Your task to perform on an android device: check battery use Image 0: 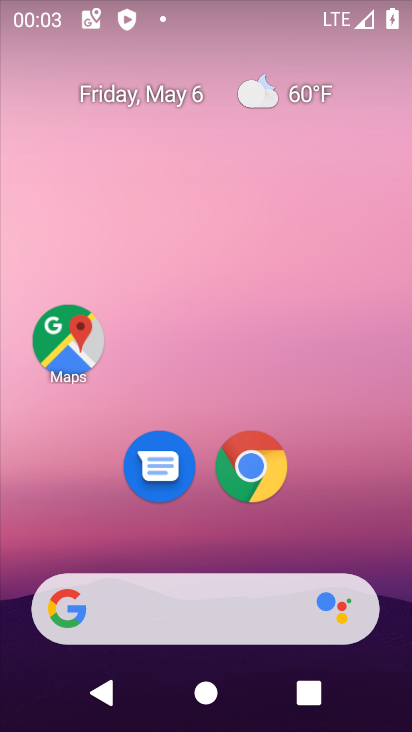
Step 0: click (244, 228)
Your task to perform on an android device: check battery use Image 1: 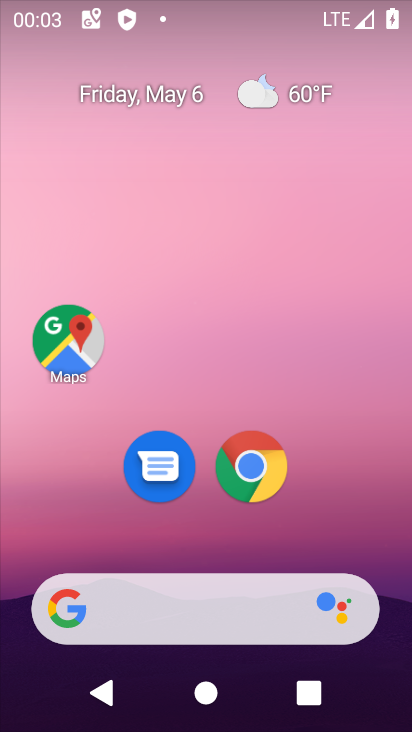
Step 1: drag from (179, 573) to (240, 149)
Your task to perform on an android device: check battery use Image 2: 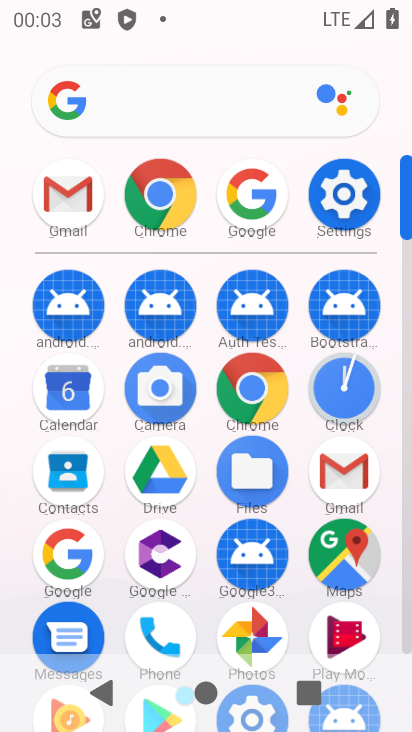
Step 2: click (333, 188)
Your task to perform on an android device: check battery use Image 3: 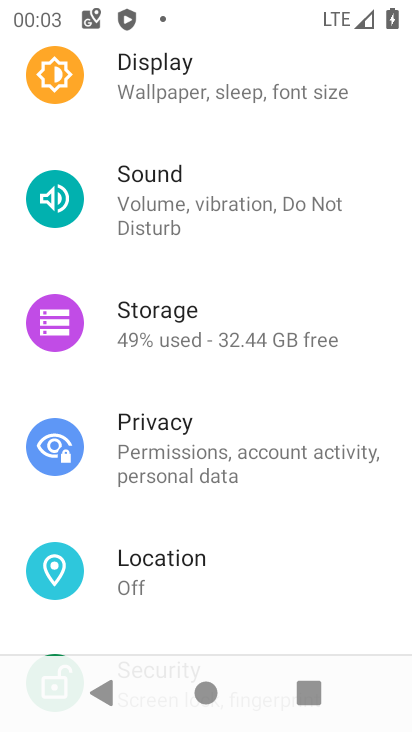
Step 3: drag from (158, 604) to (185, 332)
Your task to perform on an android device: check battery use Image 4: 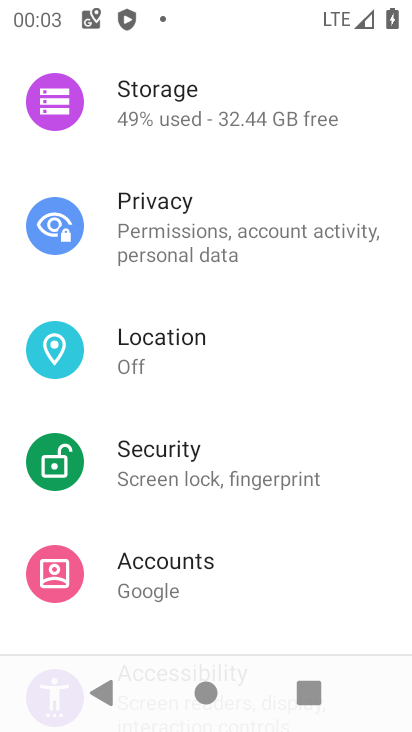
Step 4: drag from (189, 192) to (224, 581)
Your task to perform on an android device: check battery use Image 5: 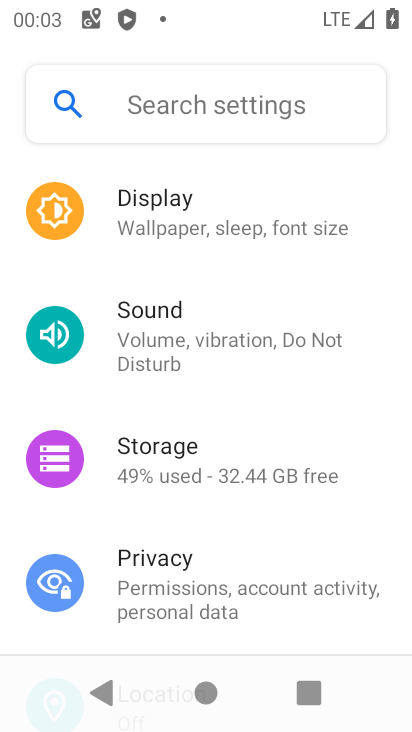
Step 5: drag from (214, 200) to (266, 544)
Your task to perform on an android device: check battery use Image 6: 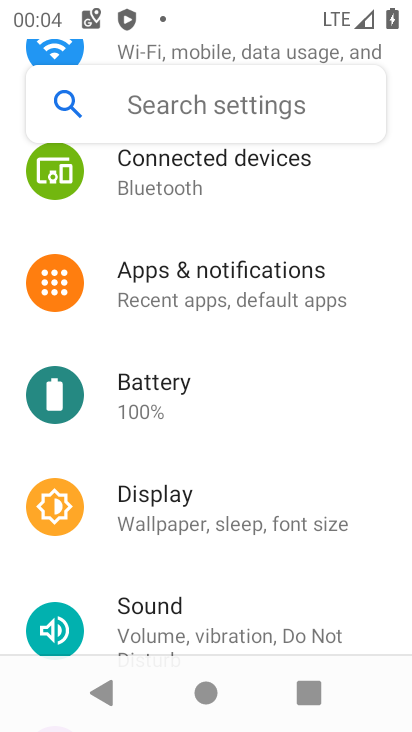
Step 6: drag from (263, 247) to (261, 585)
Your task to perform on an android device: check battery use Image 7: 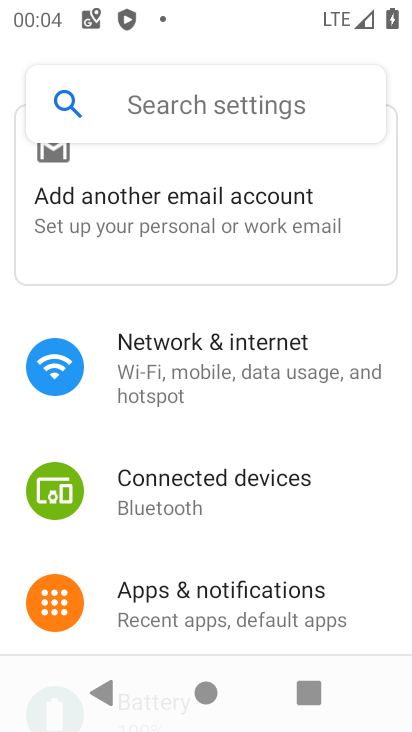
Step 7: drag from (215, 634) to (209, 277)
Your task to perform on an android device: check battery use Image 8: 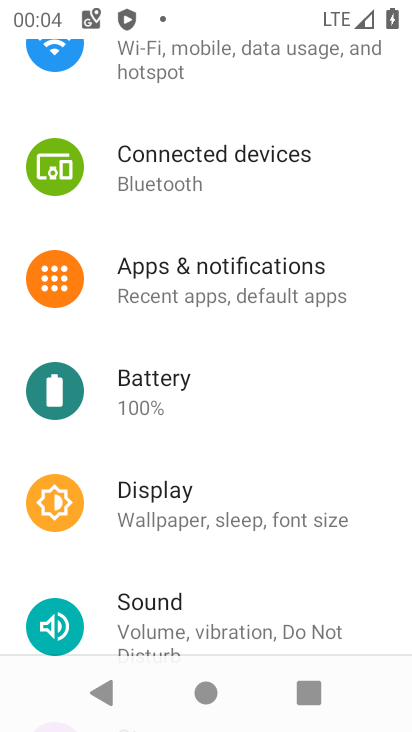
Step 8: click (155, 386)
Your task to perform on an android device: check battery use Image 9: 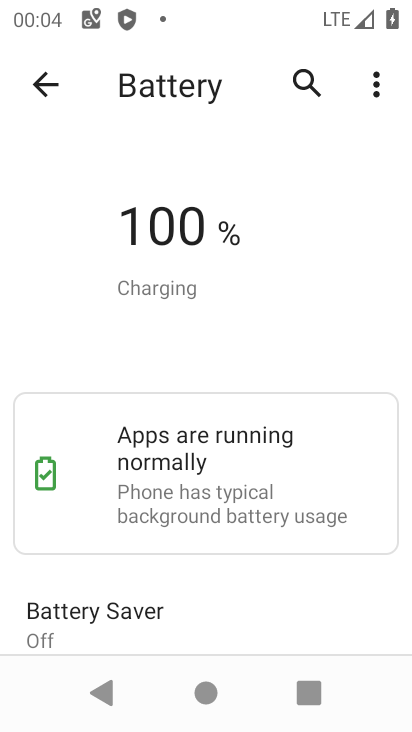
Step 9: click (375, 88)
Your task to perform on an android device: check battery use Image 10: 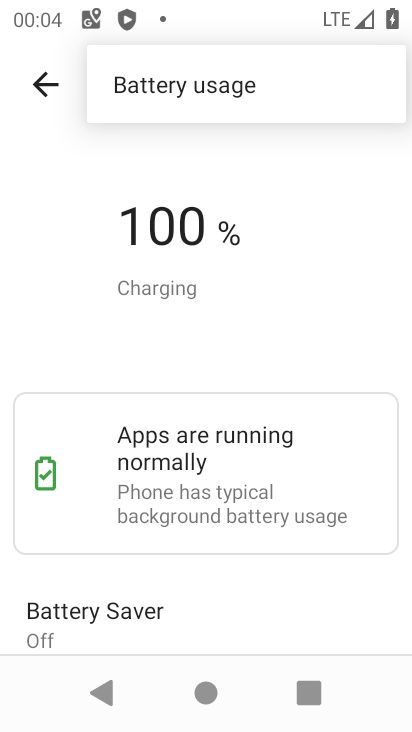
Step 10: click (261, 91)
Your task to perform on an android device: check battery use Image 11: 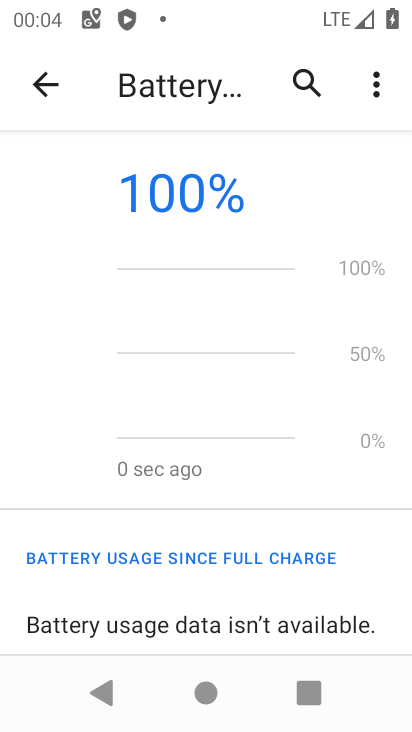
Step 11: task complete